Your task to perform on an android device: Set the phone to "Do not disturb". Image 0: 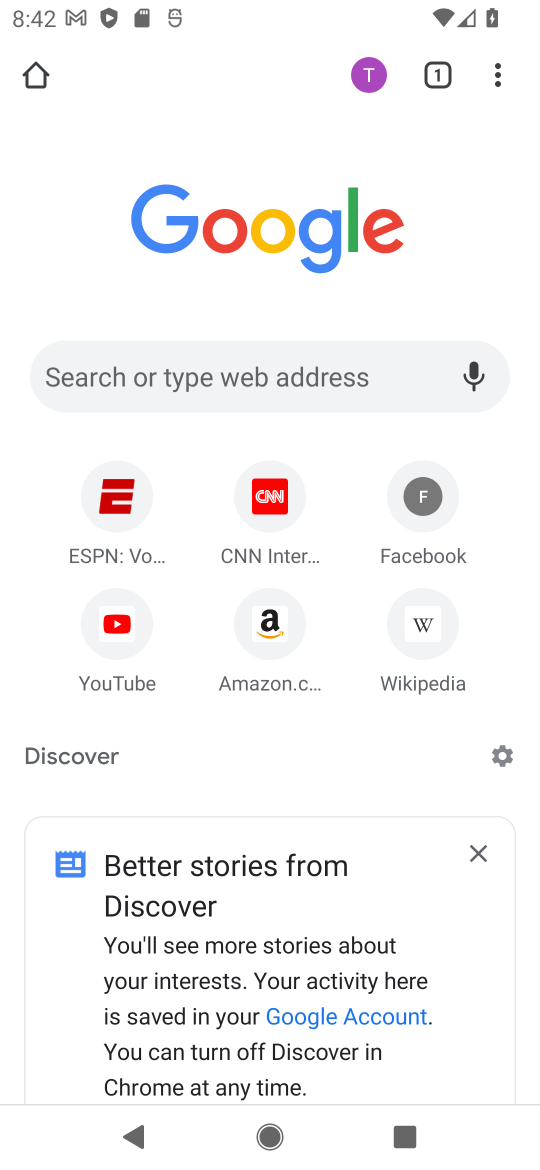
Step 0: press home button
Your task to perform on an android device: Set the phone to "Do not disturb". Image 1: 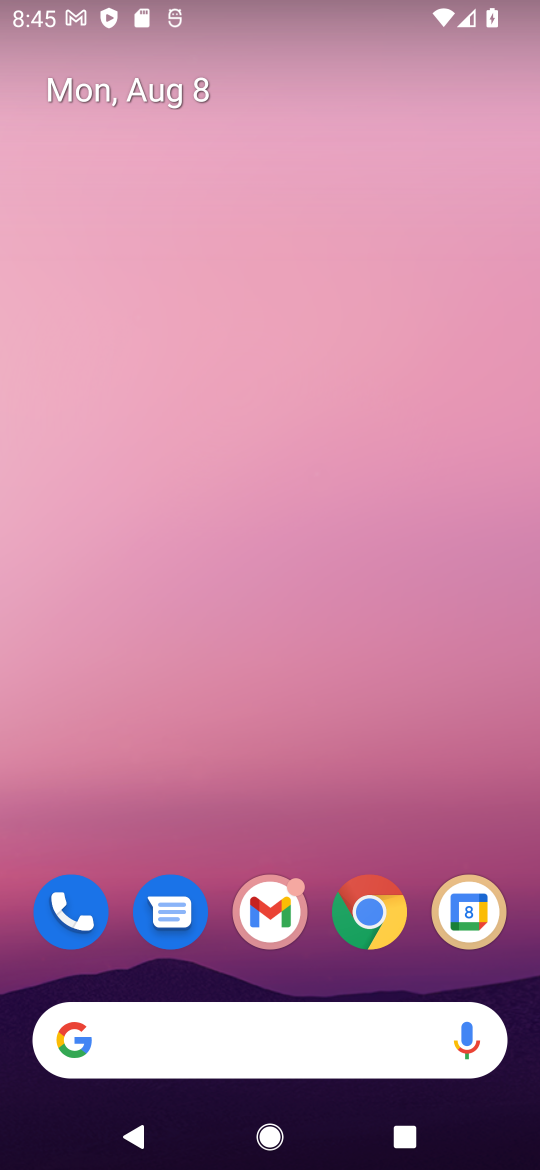
Step 1: drag from (226, 15) to (236, 978)
Your task to perform on an android device: Set the phone to "Do not disturb". Image 2: 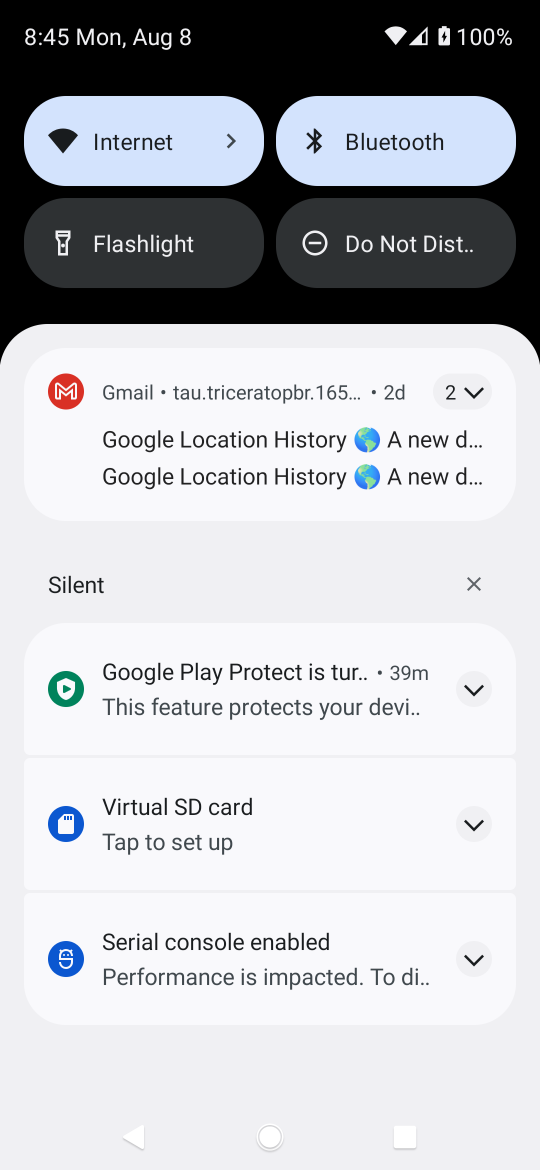
Step 2: click (407, 246)
Your task to perform on an android device: Set the phone to "Do not disturb". Image 3: 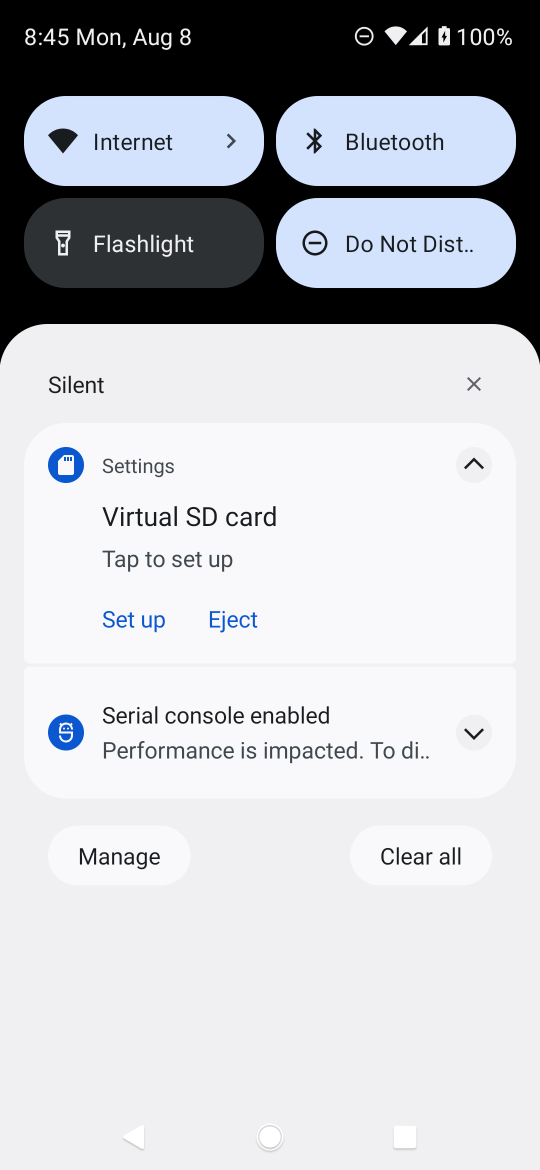
Step 3: task complete